Your task to perform on an android device: set the stopwatch Image 0: 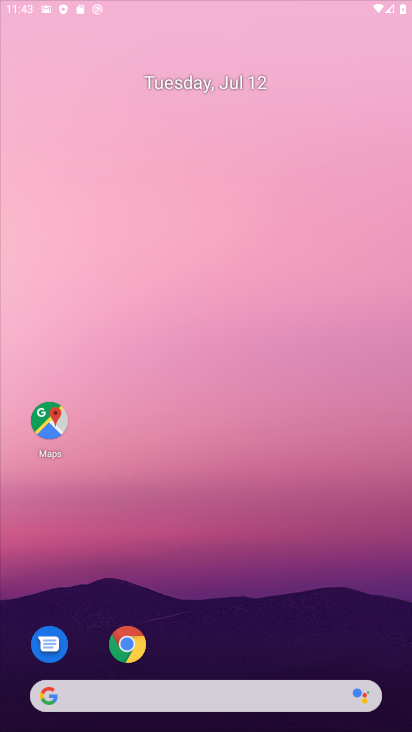
Step 0: click (136, 132)
Your task to perform on an android device: set the stopwatch Image 1: 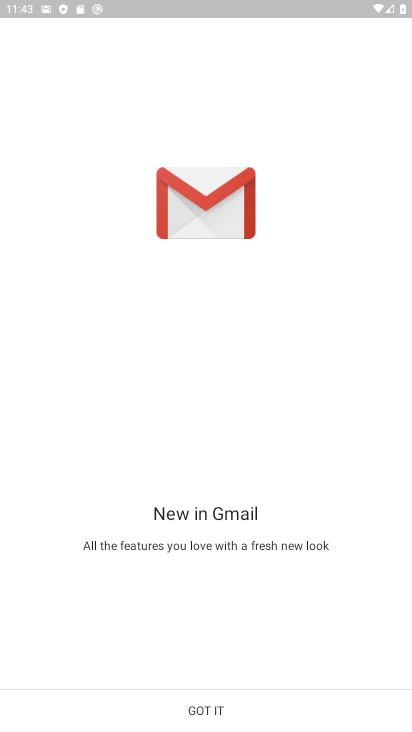
Step 1: press home button
Your task to perform on an android device: set the stopwatch Image 2: 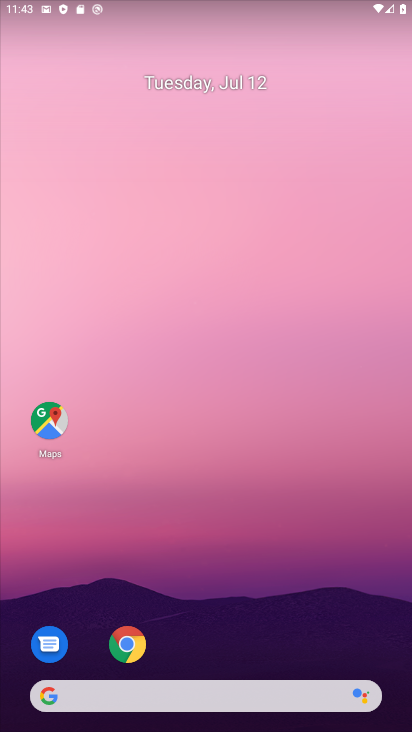
Step 2: drag from (225, 524) to (154, 101)
Your task to perform on an android device: set the stopwatch Image 3: 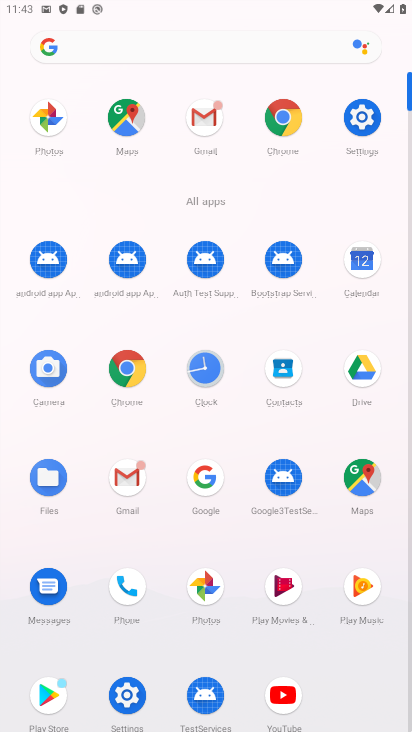
Step 3: click (205, 367)
Your task to perform on an android device: set the stopwatch Image 4: 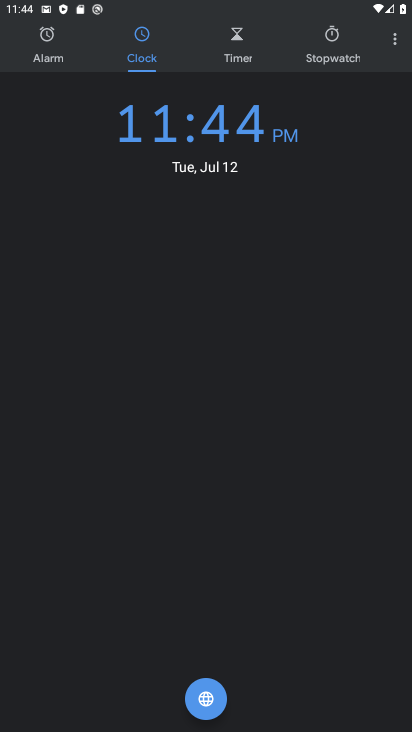
Step 4: click (334, 36)
Your task to perform on an android device: set the stopwatch Image 5: 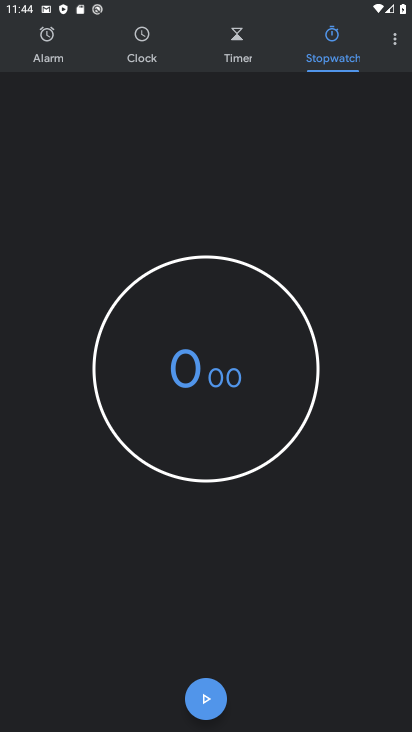
Step 5: task complete